Your task to perform on an android device: What's the weather today? Image 0: 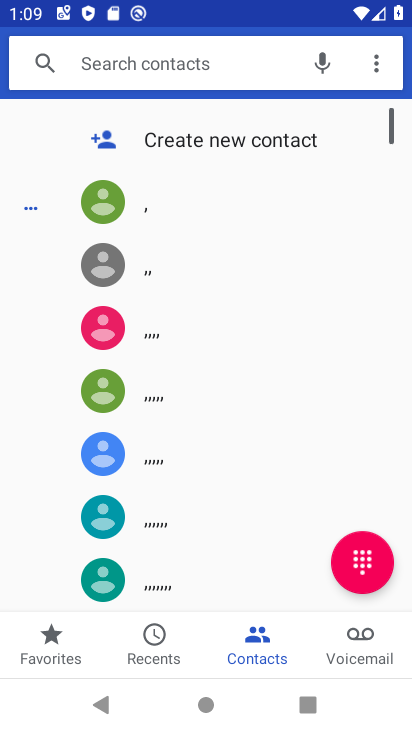
Step 0: press home button
Your task to perform on an android device: What's the weather today? Image 1: 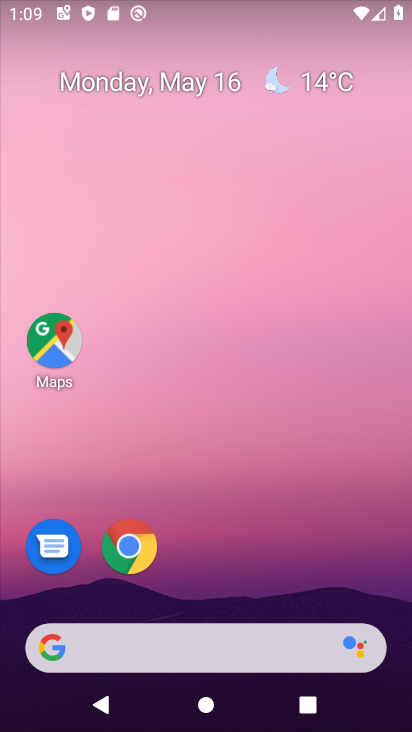
Step 1: drag from (233, 668) to (202, 299)
Your task to perform on an android device: What's the weather today? Image 2: 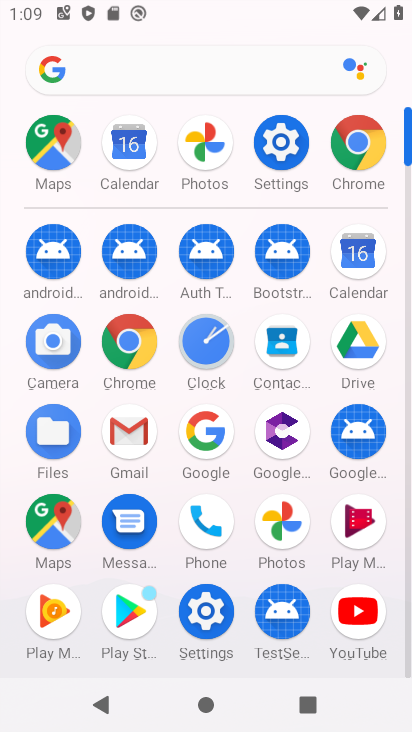
Step 2: click (145, 84)
Your task to perform on an android device: What's the weather today? Image 3: 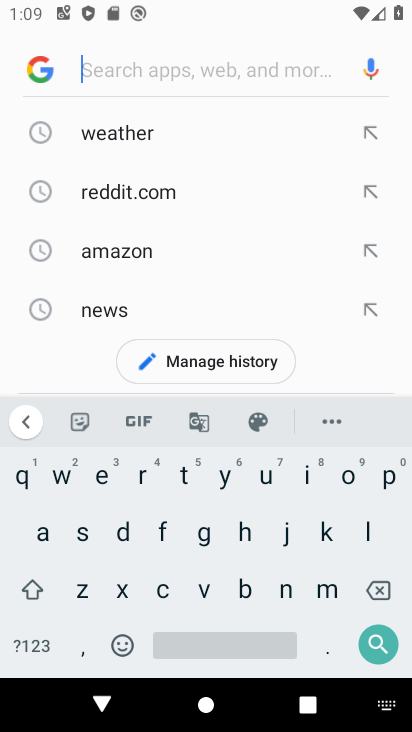
Step 3: click (105, 129)
Your task to perform on an android device: What's the weather today? Image 4: 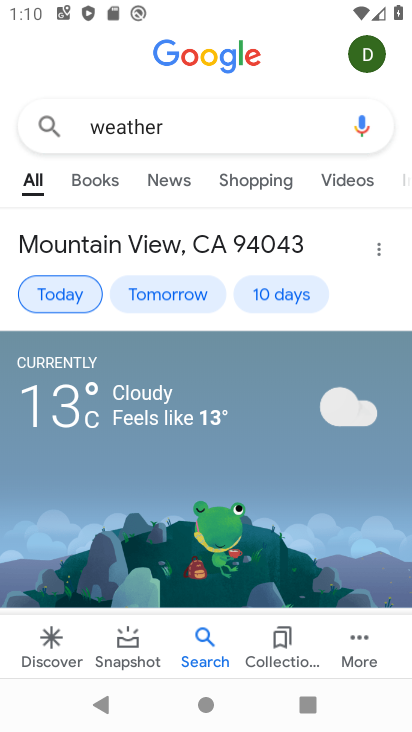
Step 4: task complete